Your task to perform on an android device: check storage Image 0: 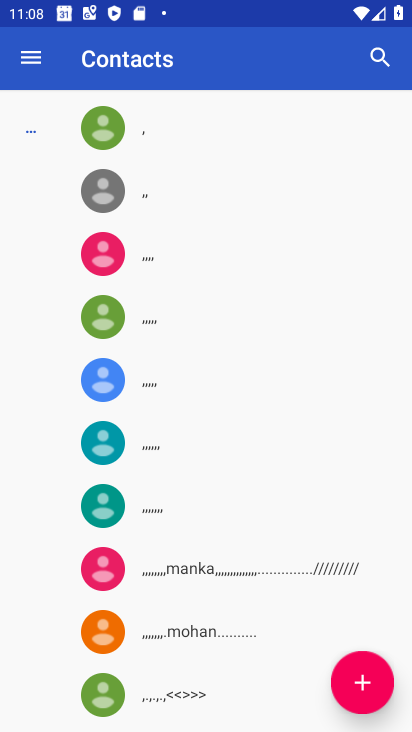
Step 0: press home button
Your task to perform on an android device: check storage Image 1: 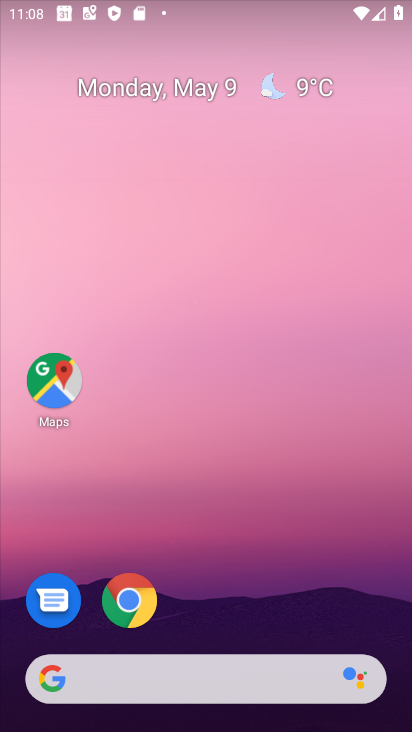
Step 1: drag from (367, 587) to (355, 196)
Your task to perform on an android device: check storage Image 2: 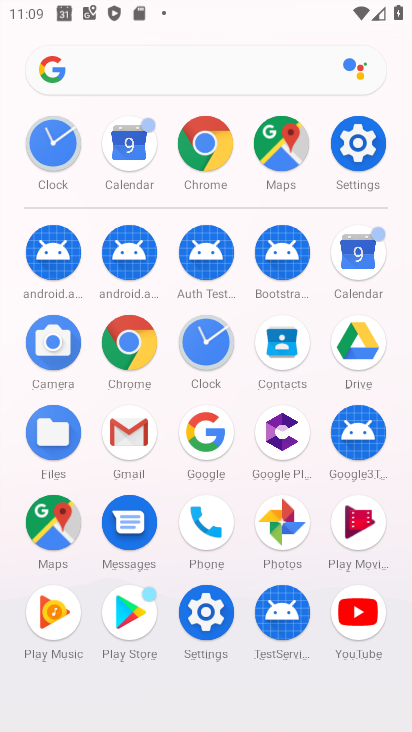
Step 2: click (200, 608)
Your task to perform on an android device: check storage Image 3: 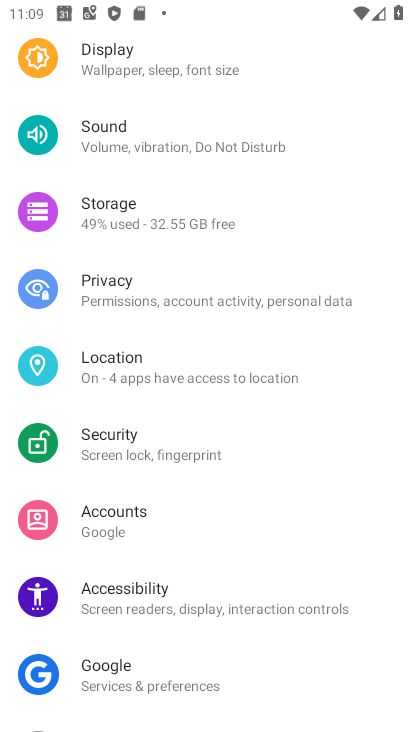
Step 3: click (140, 215)
Your task to perform on an android device: check storage Image 4: 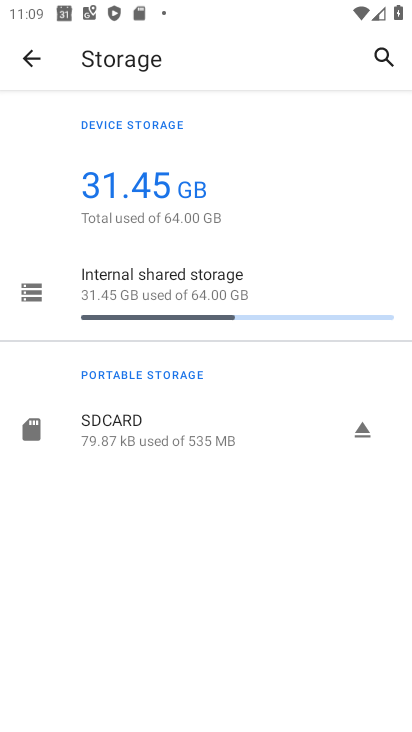
Step 4: click (32, 307)
Your task to perform on an android device: check storage Image 5: 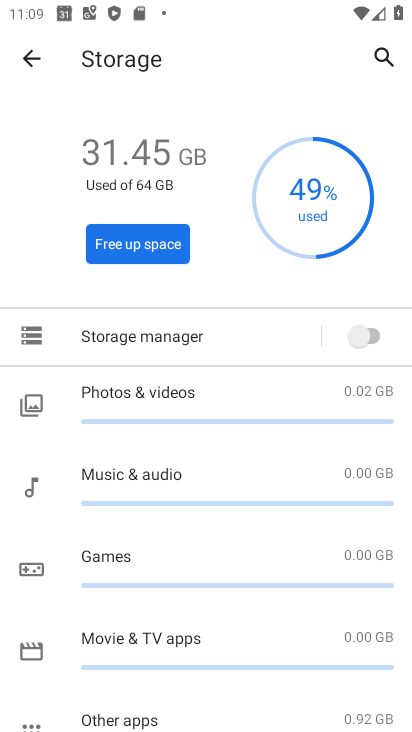
Step 5: task complete